Your task to perform on an android device: Open network settings Image 0: 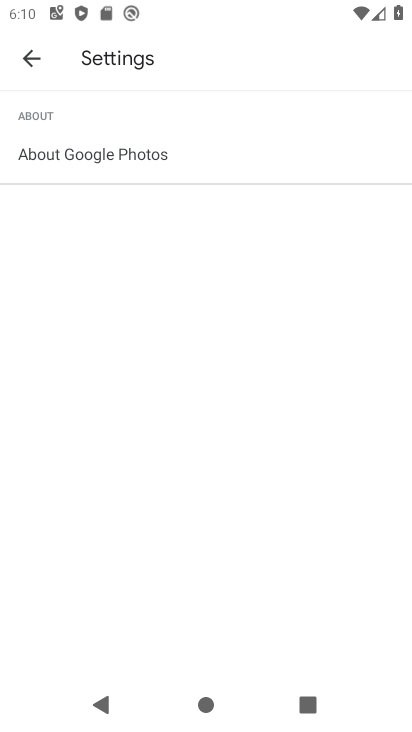
Step 0: press home button
Your task to perform on an android device: Open network settings Image 1: 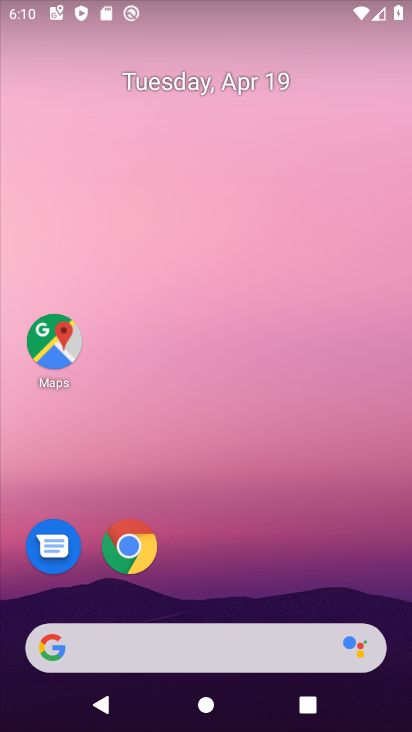
Step 1: drag from (299, 615) to (217, 94)
Your task to perform on an android device: Open network settings Image 2: 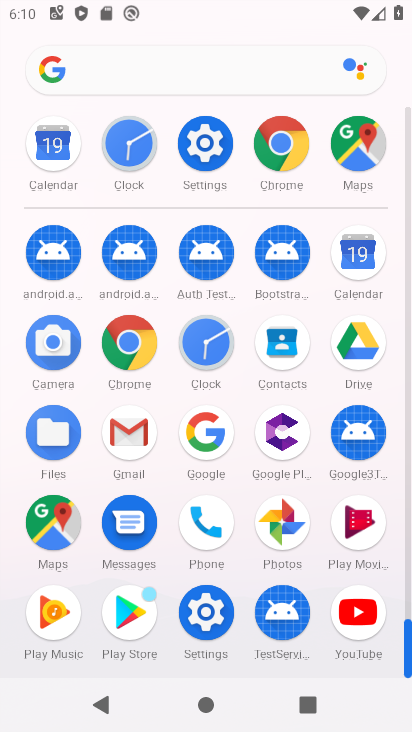
Step 2: click (215, 147)
Your task to perform on an android device: Open network settings Image 3: 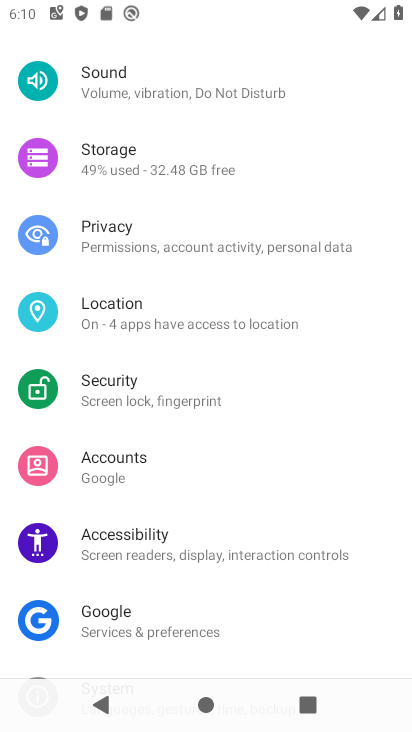
Step 3: drag from (213, 134) to (214, 619)
Your task to perform on an android device: Open network settings Image 4: 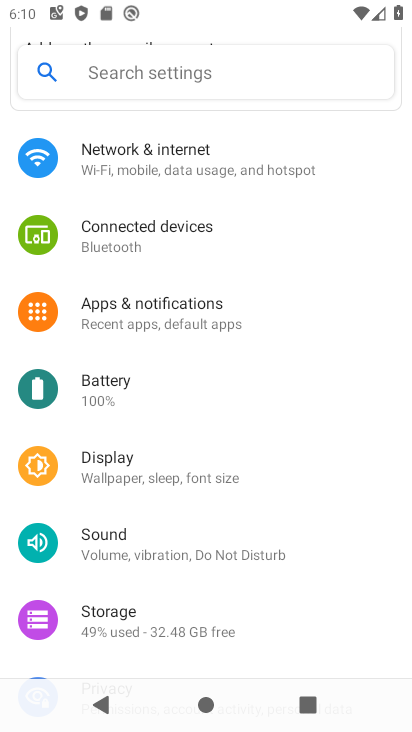
Step 4: click (154, 146)
Your task to perform on an android device: Open network settings Image 5: 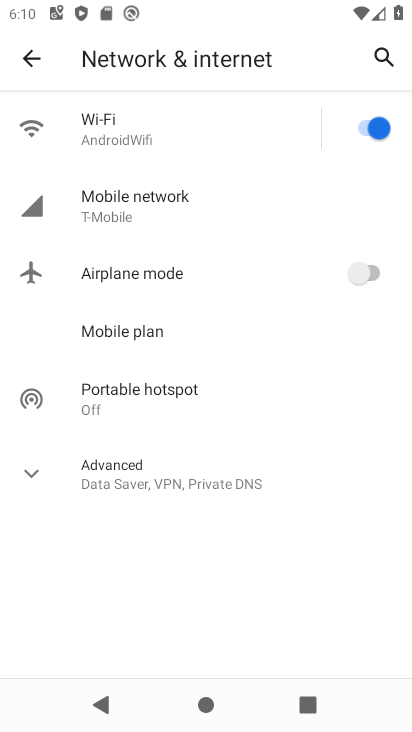
Step 5: task complete